Your task to perform on an android device: turn off location Image 0: 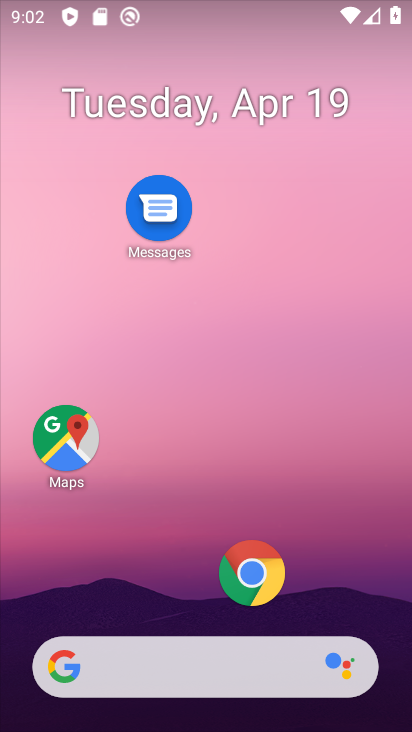
Step 0: drag from (150, 554) to (164, 53)
Your task to perform on an android device: turn off location Image 1: 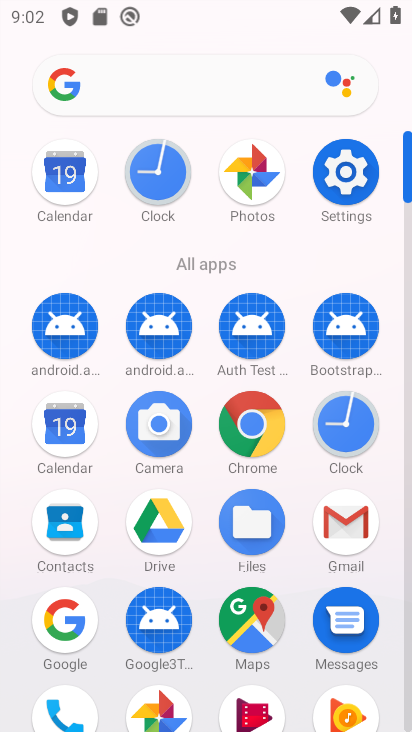
Step 1: click (329, 183)
Your task to perform on an android device: turn off location Image 2: 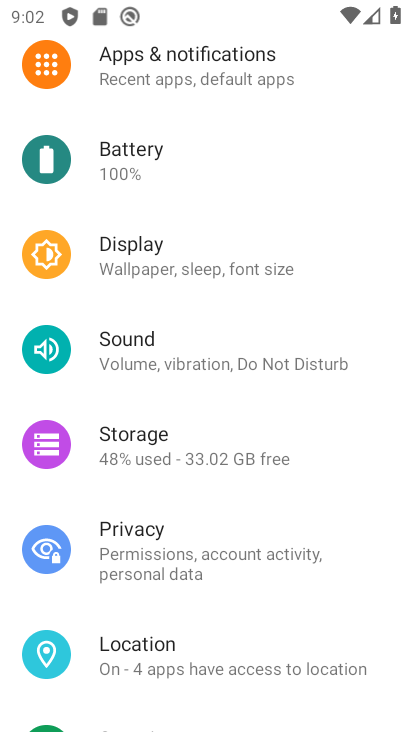
Step 2: click (182, 646)
Your task to perform on an android device: turn off location Image 3: 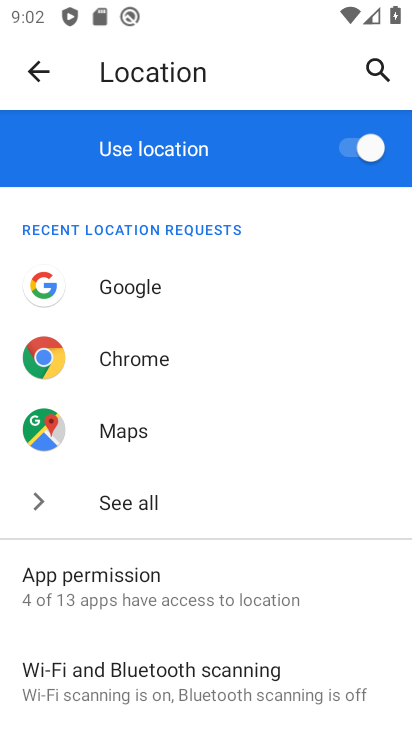
Step 3: click (360, 146)
Your task to perform on an android device: turn off location Image 4: 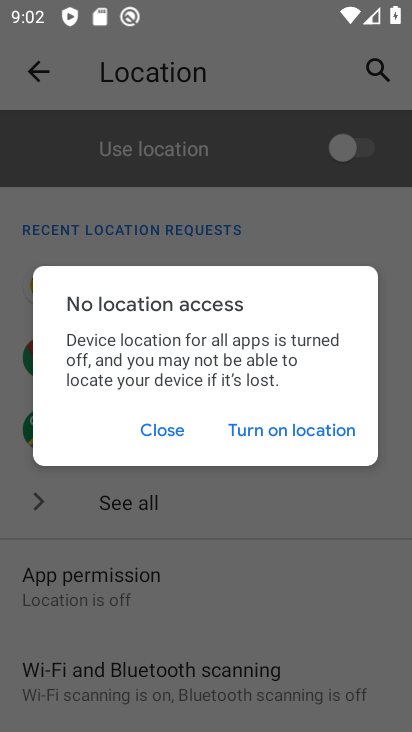
Step 4: task complete